Your task to perform on an android device: open app "Adobe Acrobat Reader" (install if not already installed), go to login, and select forgot password Image 0: 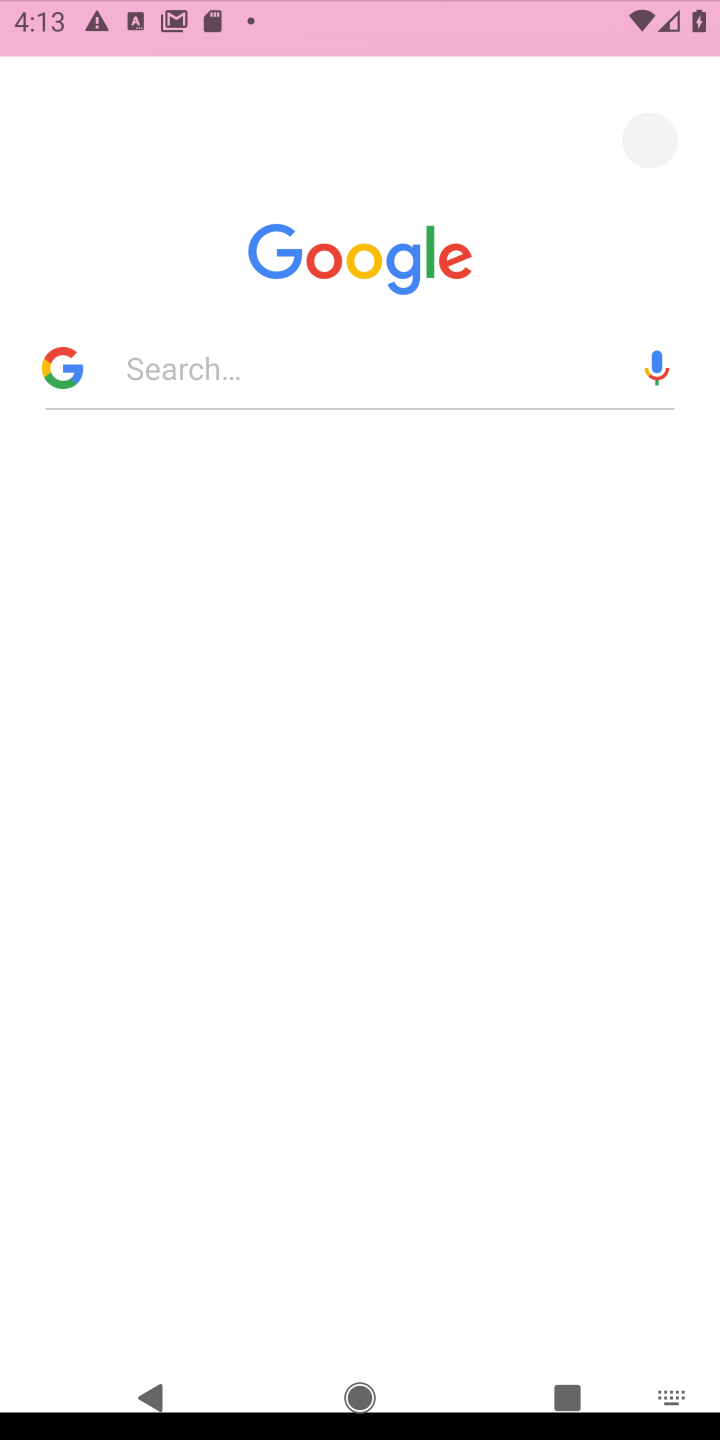
Step 0: press home button
Your task to perform on an android device: open app "Adobe Acrobat Reader" (install if not already installed), go to login, and select forgot password Image 1: 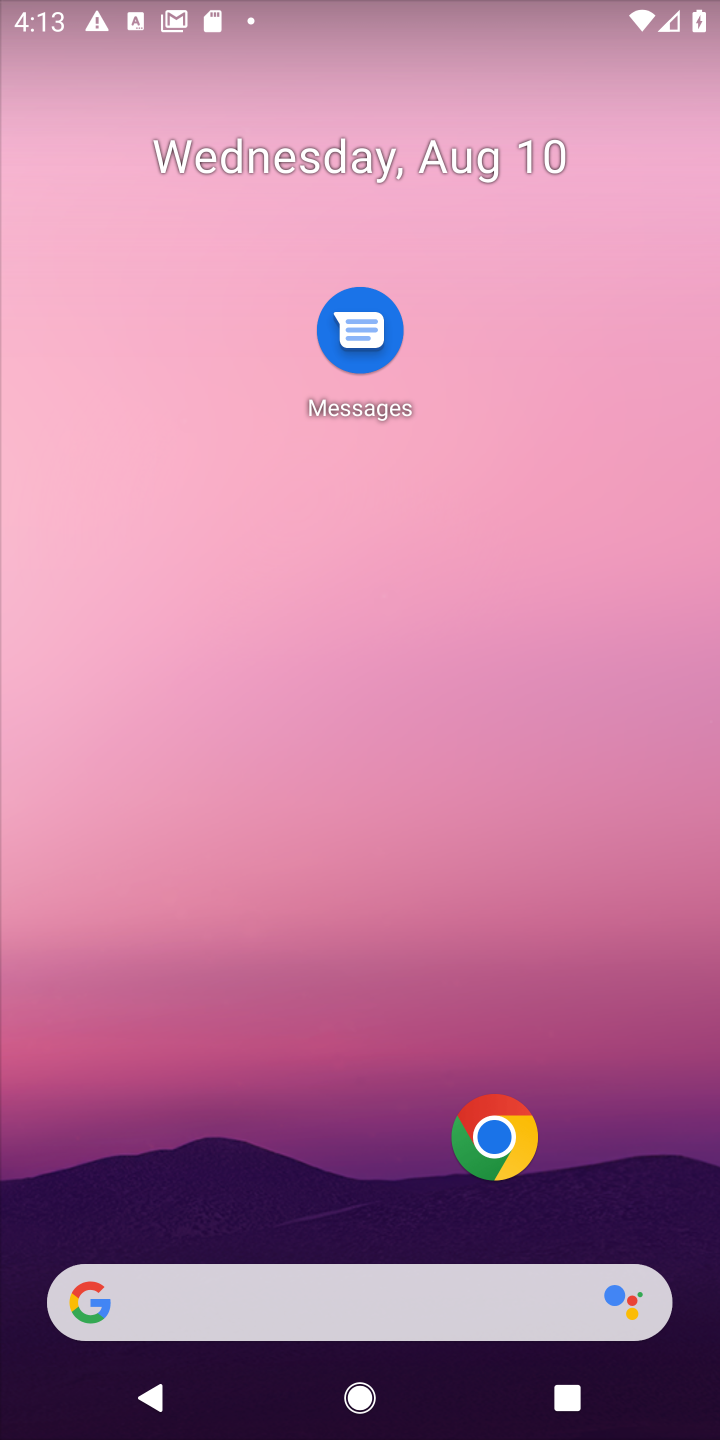
Step 1: drag from (300, 905) to (409, 154)
Your task to perform on an android device: open app "Adobe Acrobat Reader" (install if not already installed), go to login, and select forgot password Image 2: 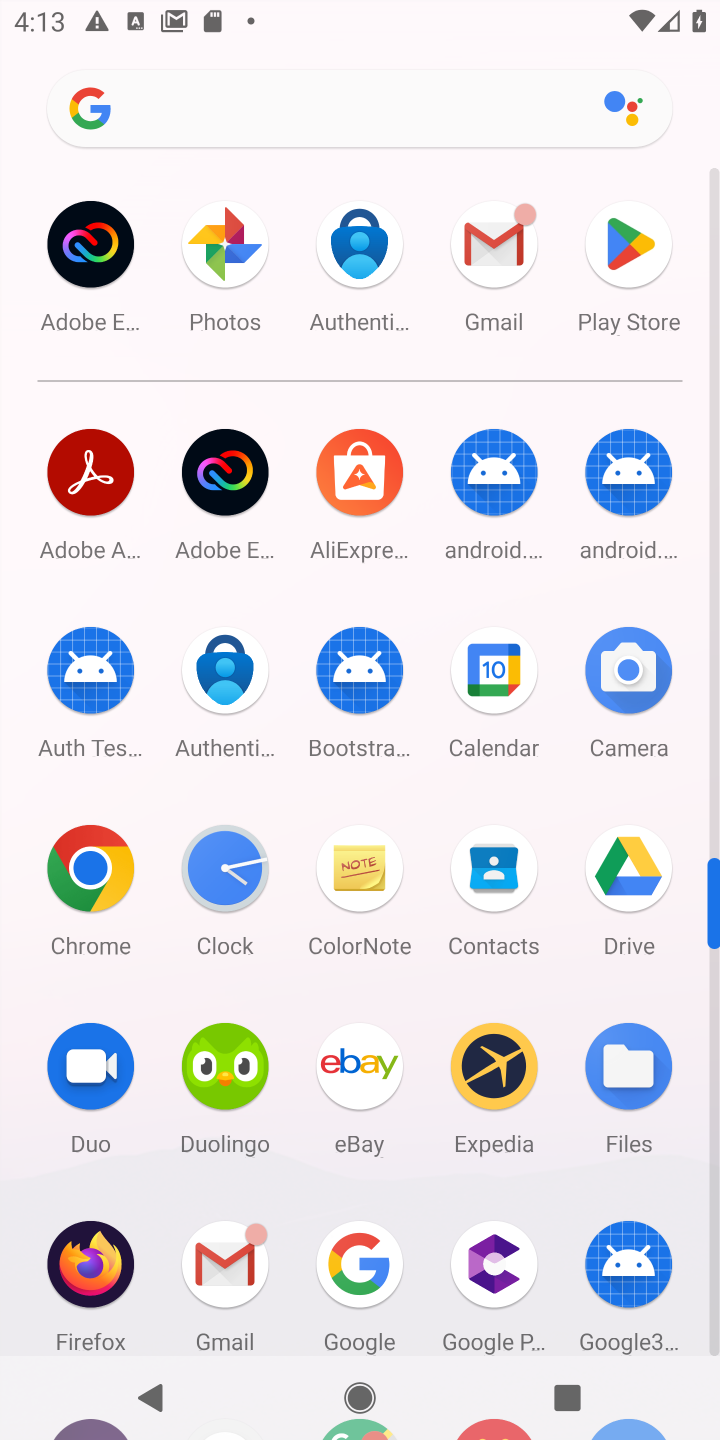
Step 2: click (602, 257)
Your task to perform on an android device: open app "Adobe Acrobat Reader" (install if not already installed), go to login, and select forgot password Image 3: 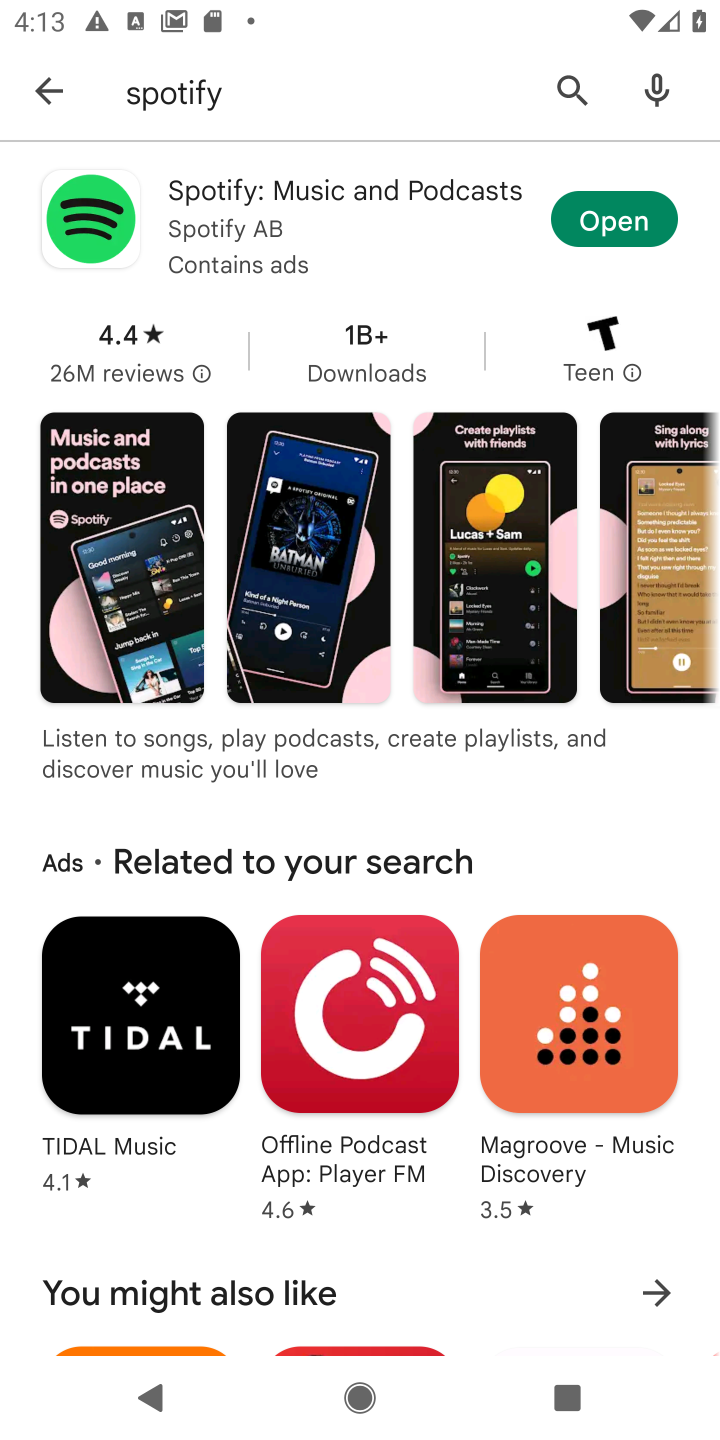
Step 3: click (218, 108)
Your task to perform on an android device: open app "Adobe Acrobat Reader" (install if not already installed), go to login, and select forgot password Image 4: 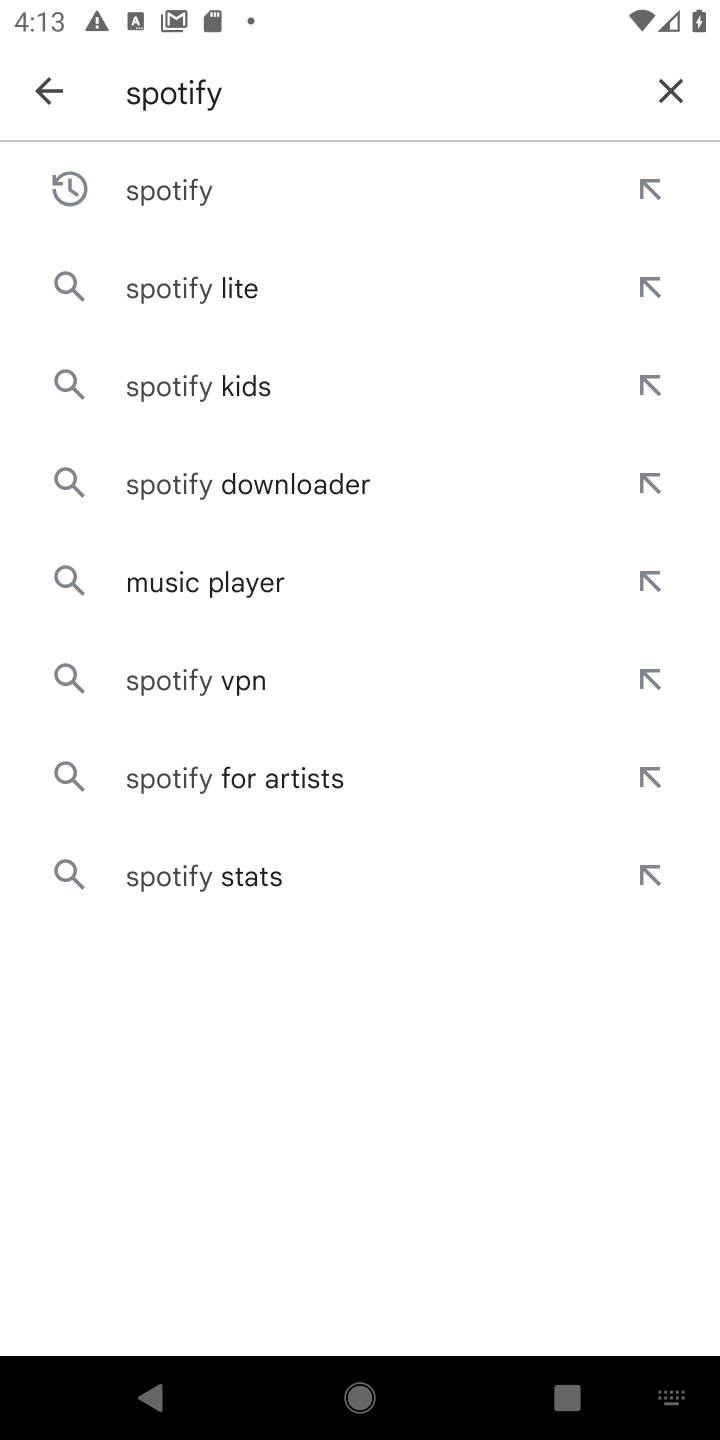
Step 4: click (659, 78)
Your task to perform on an android device: open app "Adobe Acrobat Reader" (install if not already installed), go to login, and select forgot password Image 5: 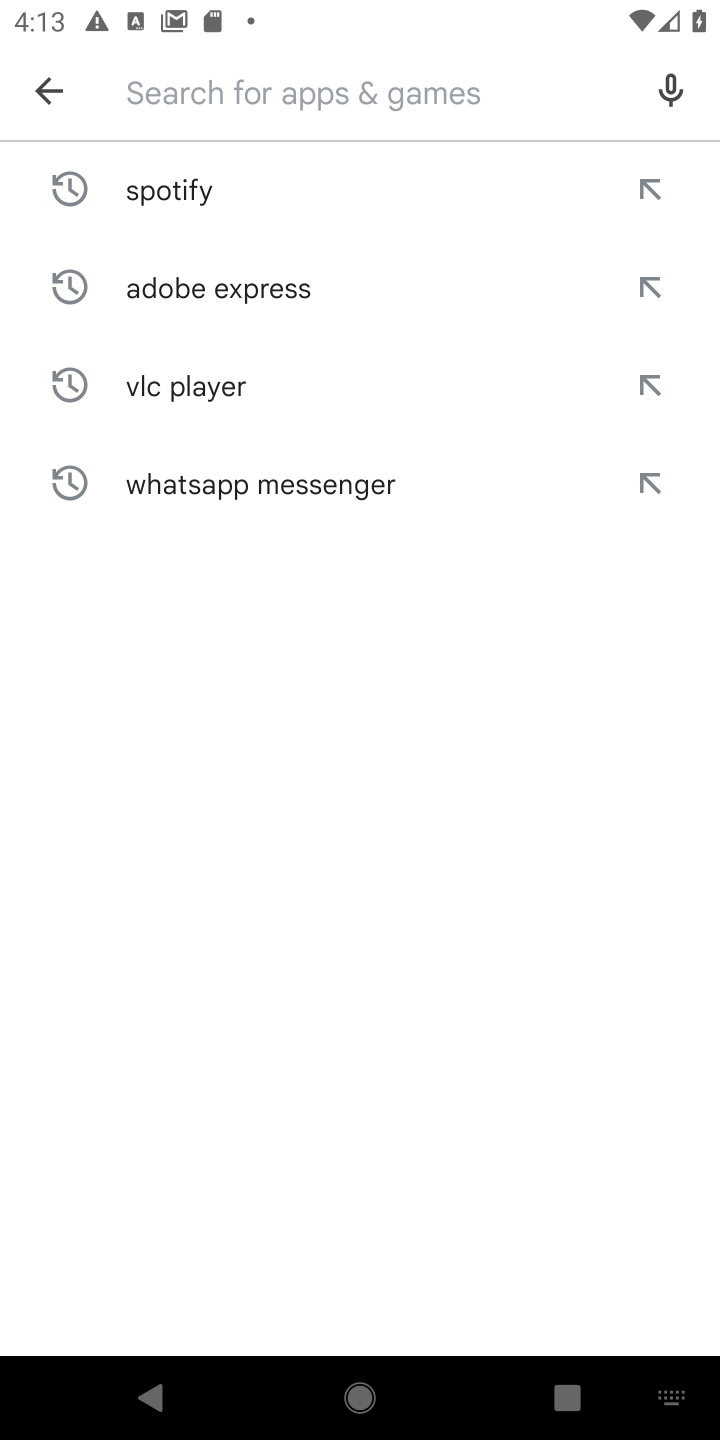
Step 5: type "Adobe Acrobat reader"
Your task to perform on an android device: open app "Adobe Acrobat Reader" (install if not already installed), go to login, and select forgot password Image 6: 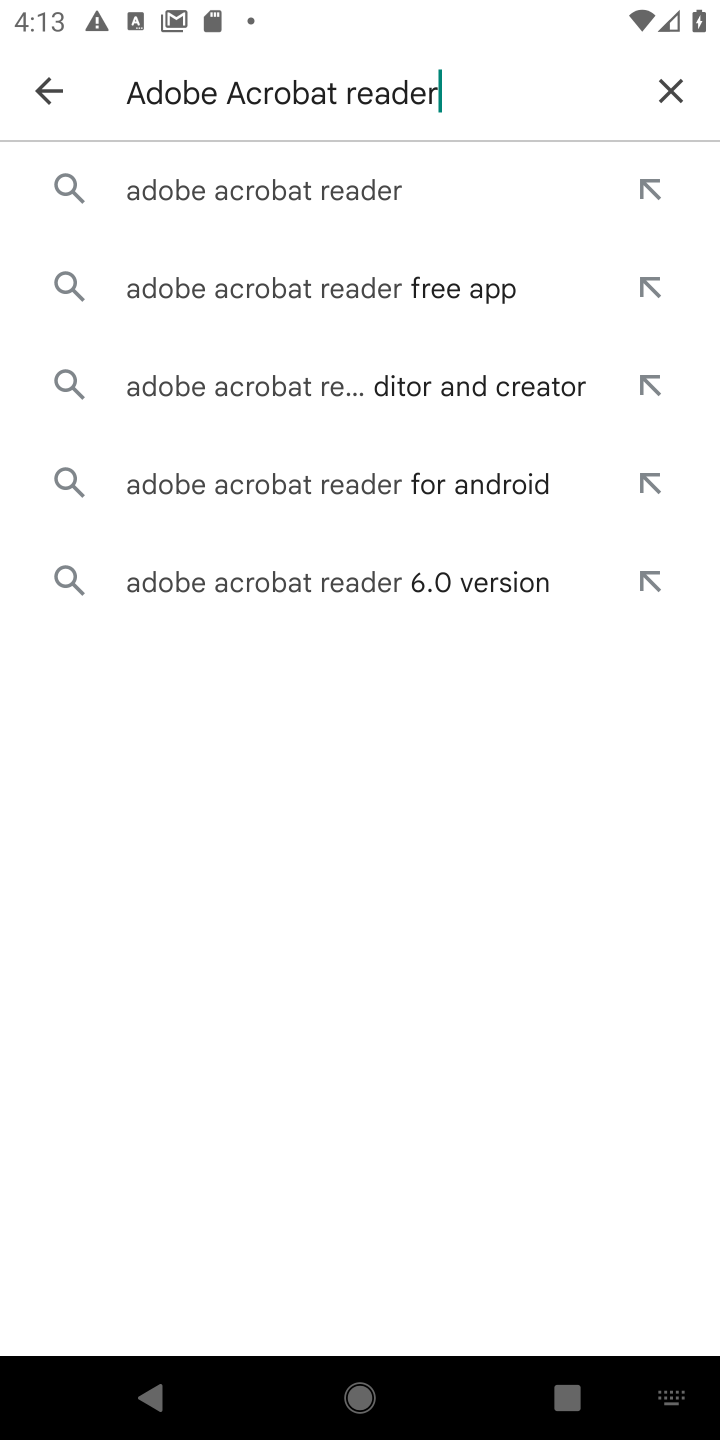
Step 6: click (256, 181)
Your task to perform on an android device: open app "Adobe Acrobat Reader" (install if not already installed), go to login, and select forgot password Image 7: 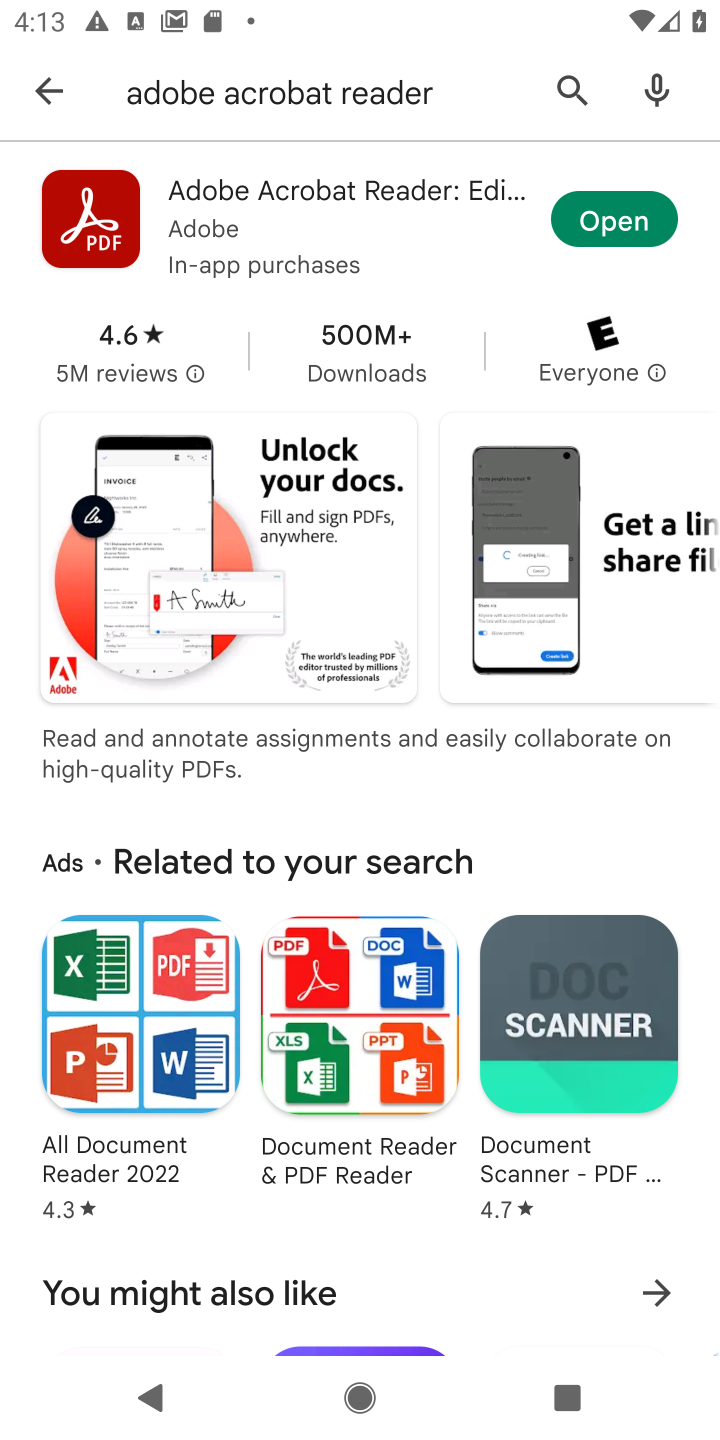
Step 7: click (631, 180)
Your task to perform on an android device: open app "Adobe Acrobat Reader" (install if not already installed), go to login, and select forgot password Image 8: 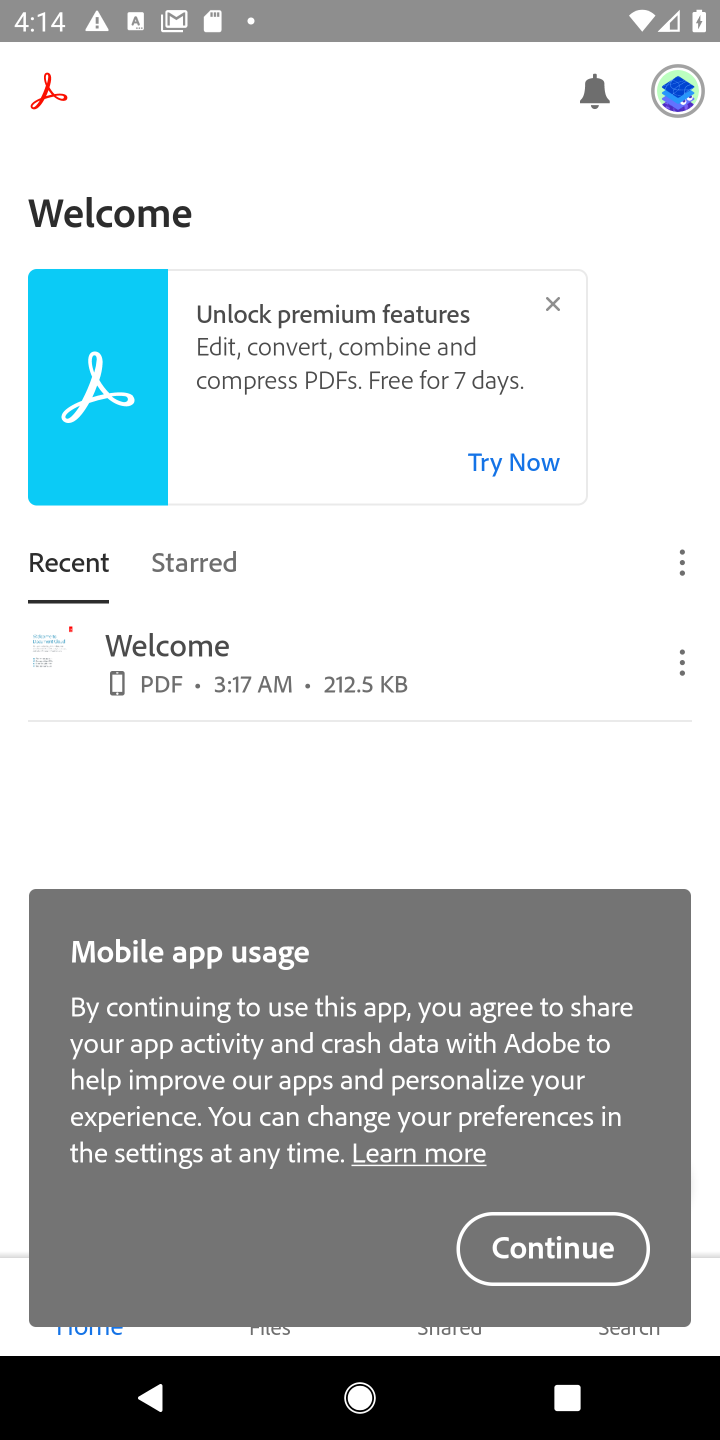
Step 8: task complete